Your task to perform on an android device: turn on data saver in the chrome app Image 0: 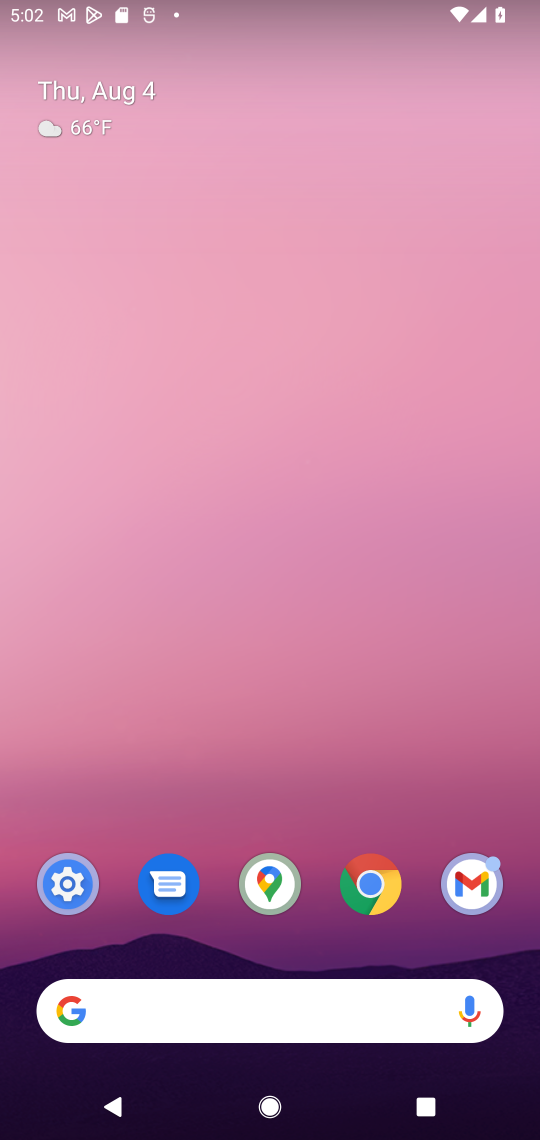
Step 0: click (369, 892)
Your task to perform on an android device: turn on data saver in the chrome app Image 1: 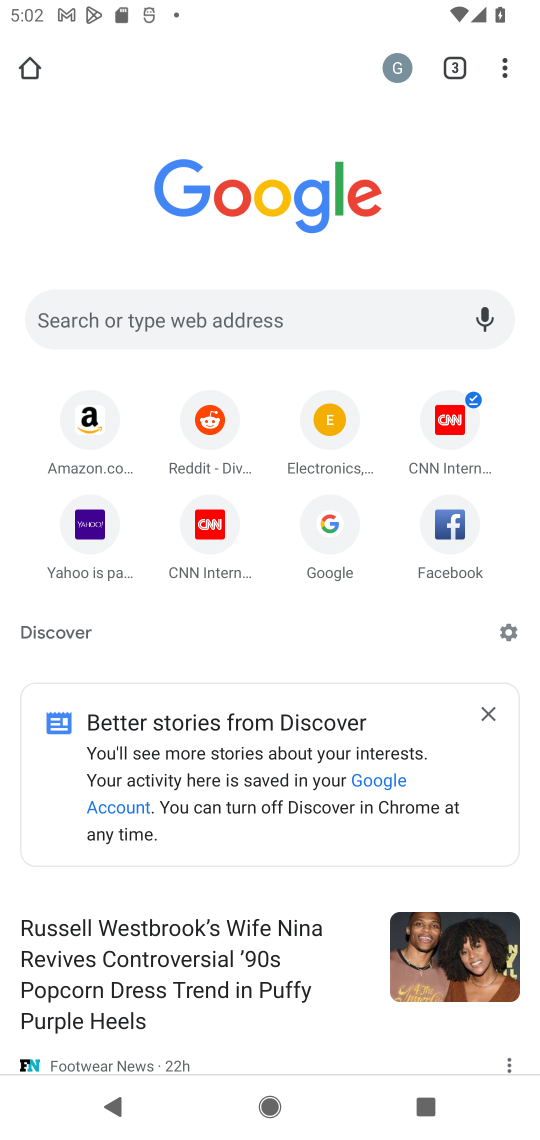
Step 1: click (516, 61)
Your task to perform on an android device: turn on data saver in the chrome app Image 2: 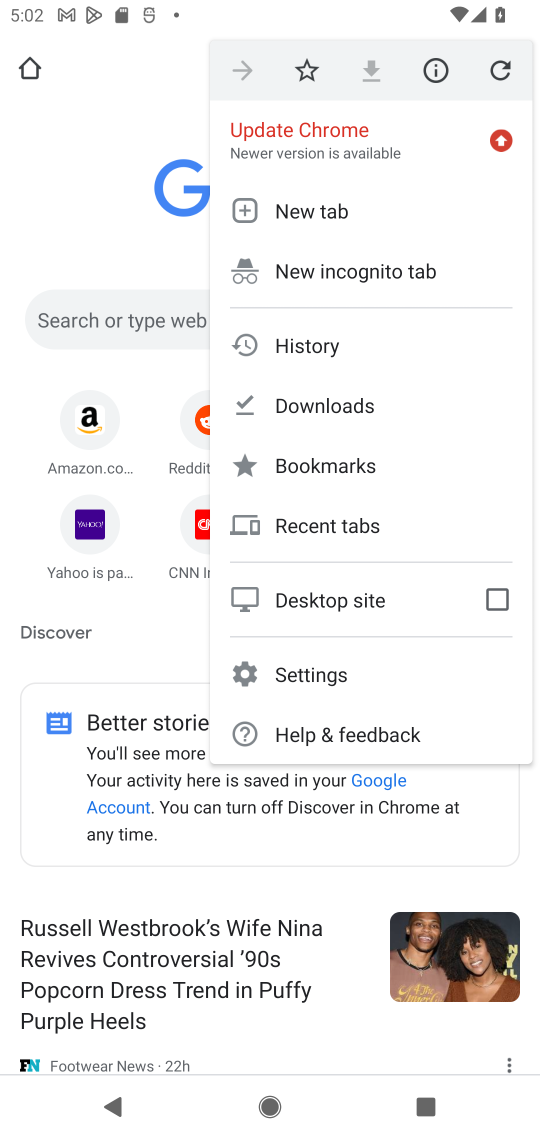
Step 2: click (344, 661)
Your task to perform on an android device: turn on data saver in the chrome app Image 3: 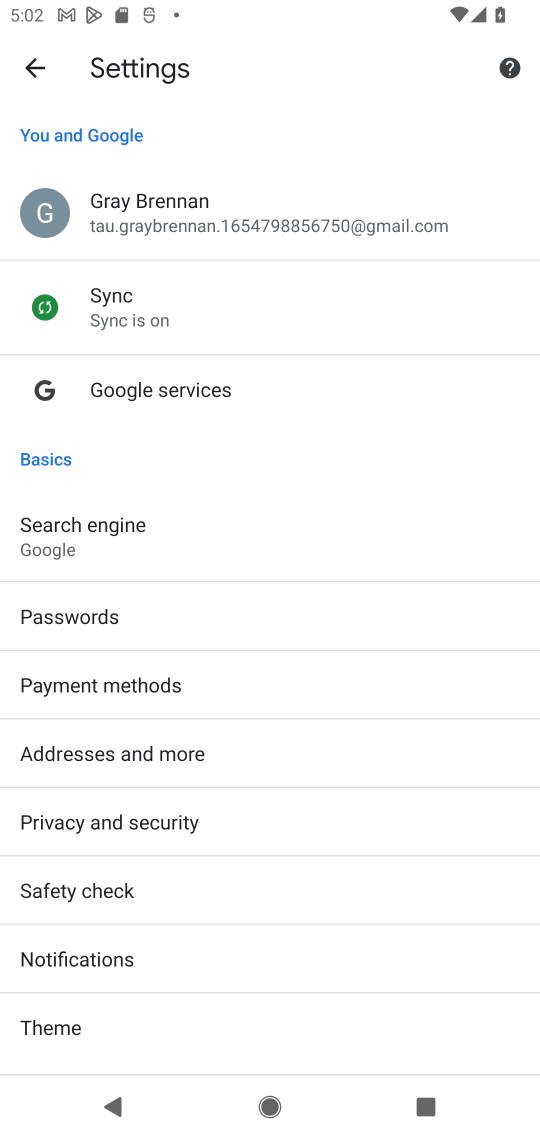
Step 3: drag from (232, 1035) to (206, 271)
Your task to perform on an android device: turn on data saver in the chrome app Image 4: 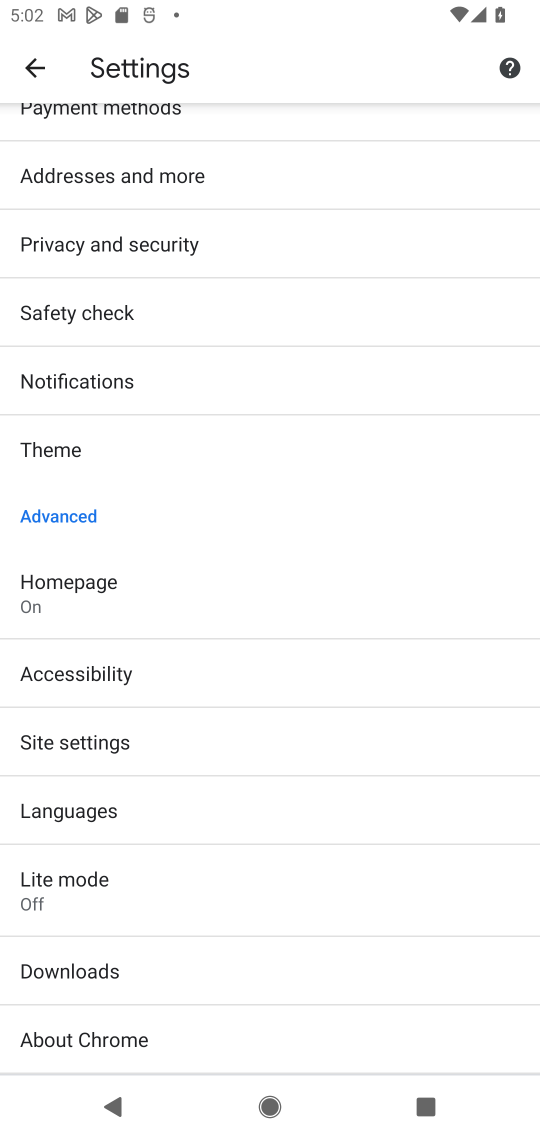
Step 4: click (156, 938)
Your task to perform on an android device: turn on data saver in the chrome app Image 5: 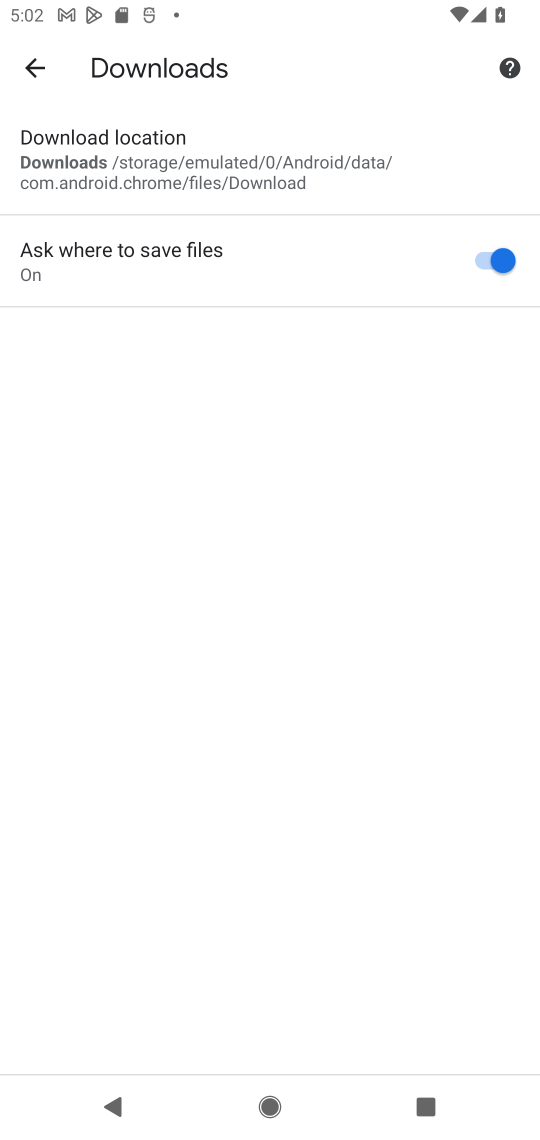
Step 5: task complete